Your task to perform on an android device: Open privacy settings Image 0: 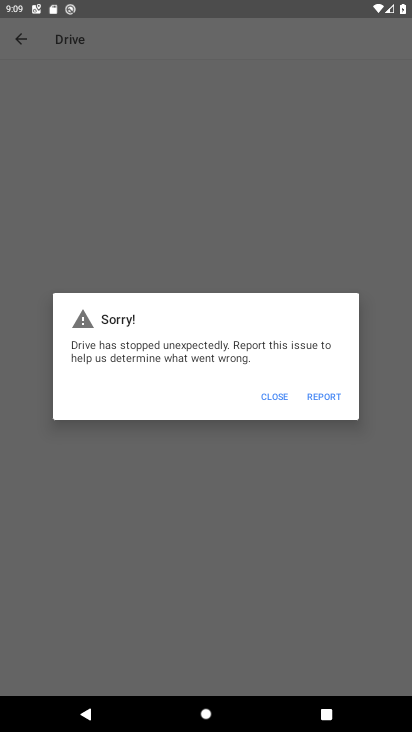
Step 0: press home button
Your task to perform on an android device: Open privacy settings Image 1: 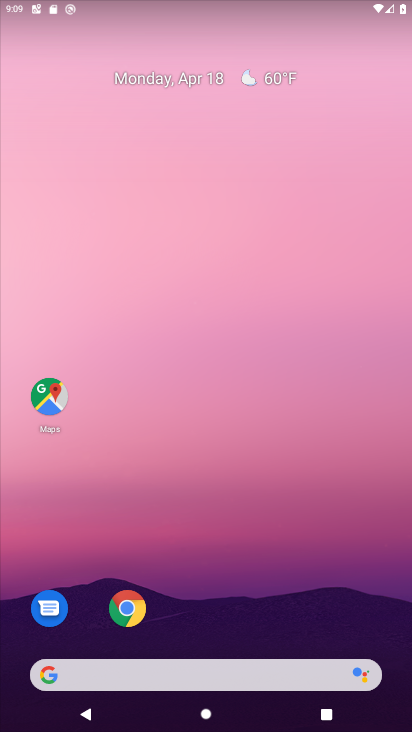
Step 1: drag from (376, 612) to (341, 158)
Your task to perform on an android device: Open privacy settings Image 2: 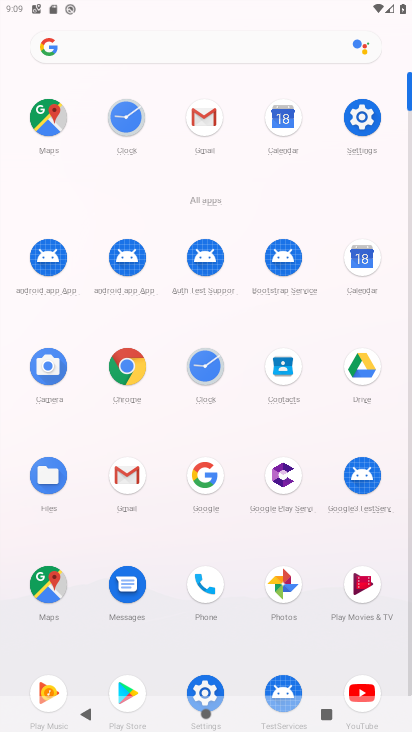
Step 2: click (205, 682)
Your task to perform on an android device: Open privacy settings Image 3: 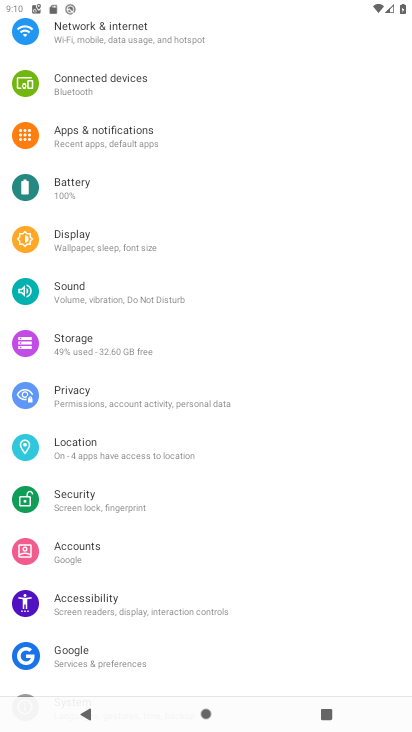
Step 3: click (91, 399)
Your task to perform on an android device: Open privacy settings Image 4: 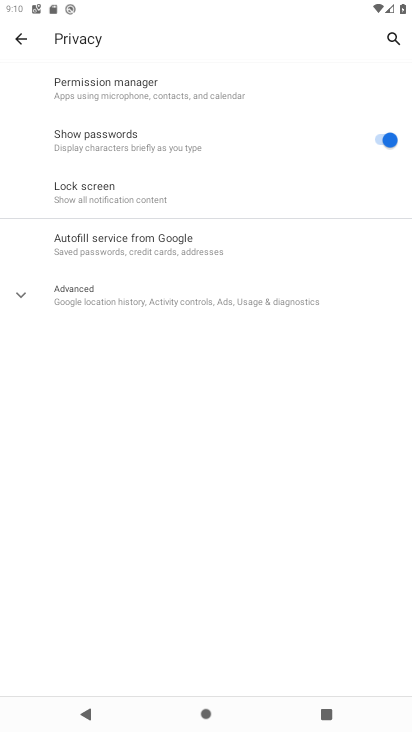
Step 4: task complete